Your task to perform on an android device: turn on the 24-hour format for clock Image 0: 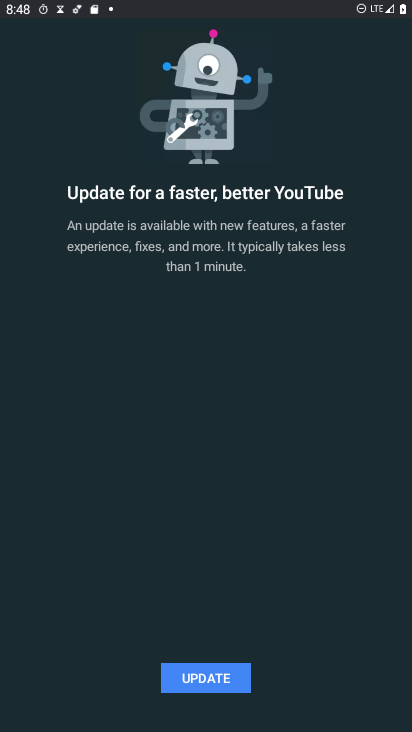
Step 0: press home button
Your task to perform on an android device: turn on the 24-hour format for clock Image 1: 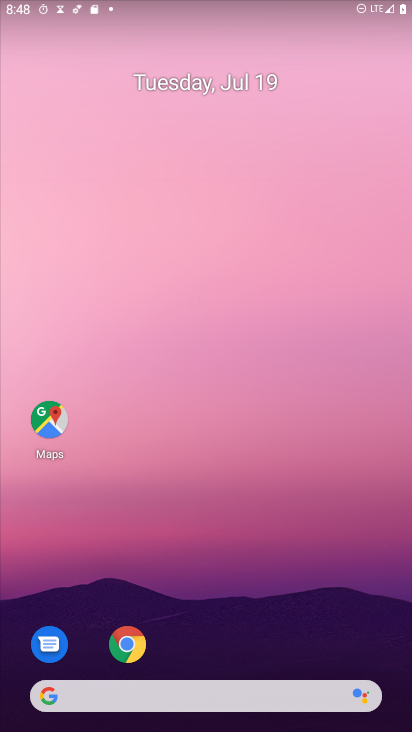
Step 1: drag from (34, 687) to (233, 188)
Your task to perform on an android device: turn on the 24-hour format for clock Image 2: 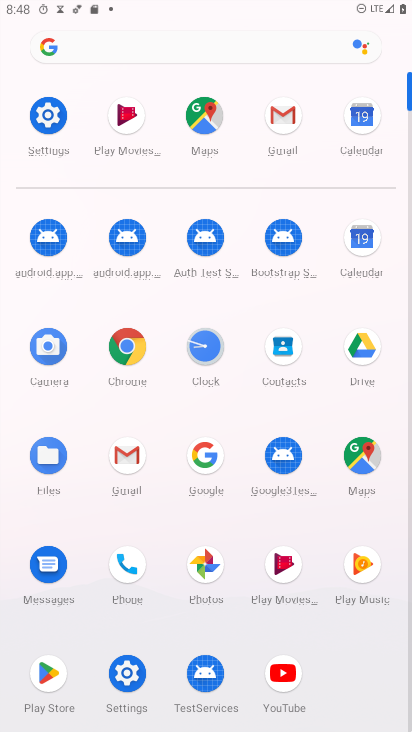
Step 2: click (204, 355)
Your task to perform on an android device: turn on the 24-hour format for clock Image 3: 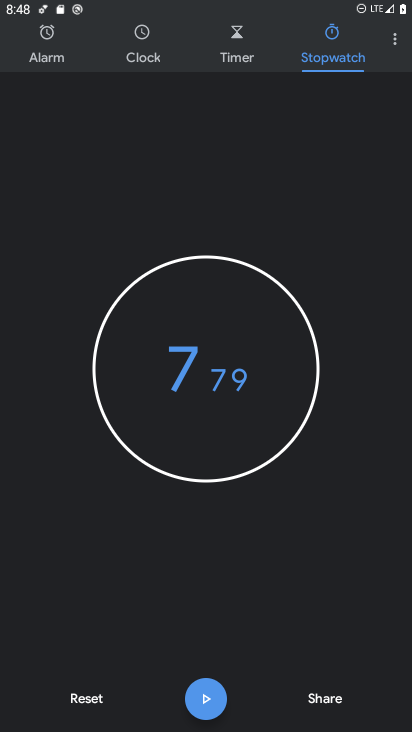
Step 3: click (139, 43)
Your task to perform on an android device: turn on the 24-hour format for clock Image 4: 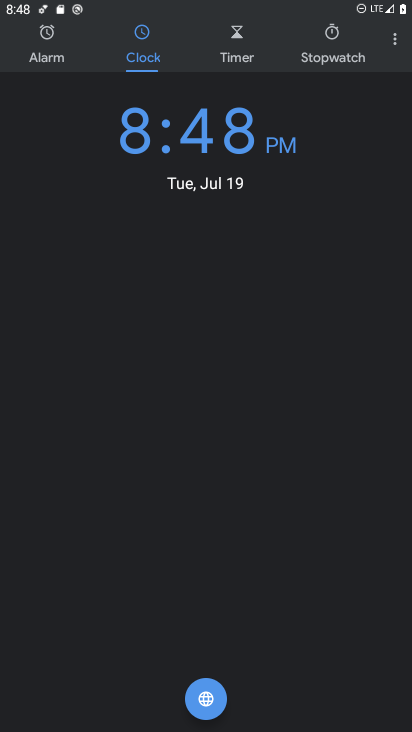
Step 4: click (399, 42)
Your task to perform on an android device: turn on the 24-hour format for clock Image 5: 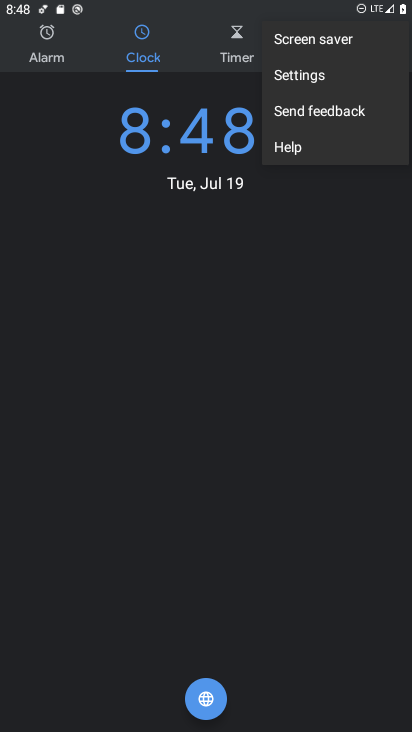
Step 5: click (286, 79)
Your task to perform on an android device: turn on the 24-hour format for clock Image 6: 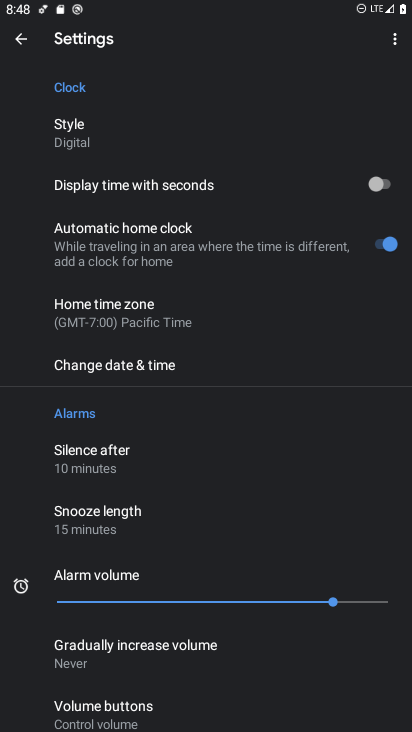
Step 6: click (123, 349)
Your task to perform on an android device: turn on the 24-hour format for clock Image 7: 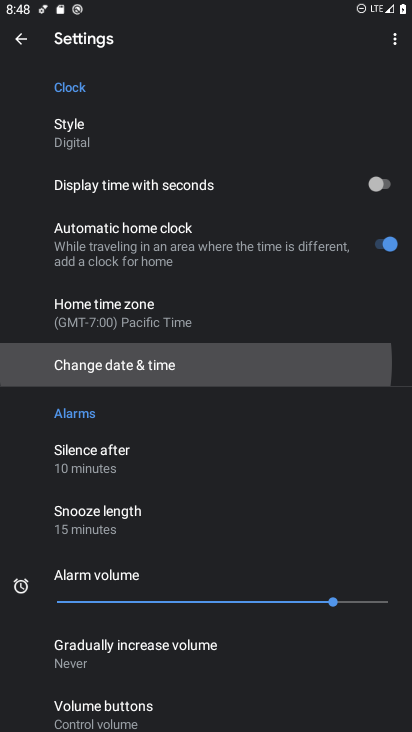
Step 7: click (120, 357)
Your task to perform on an android device: turn on the 24-hour format for clock Image 8: 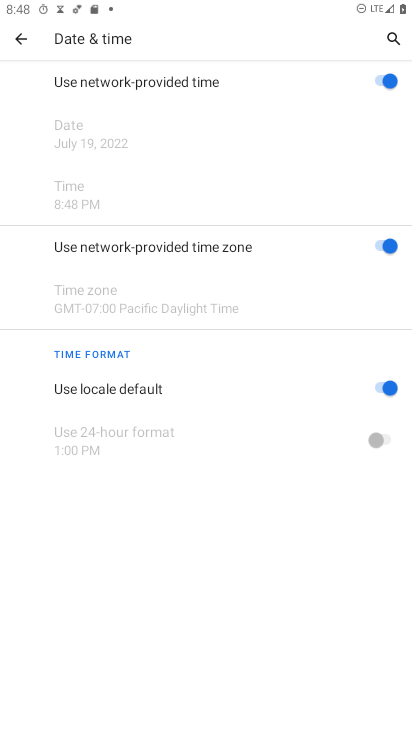
Step 8: click (373, 438)
Your task to perform on an android device: turn on the 24-hour format for clock Image 9: 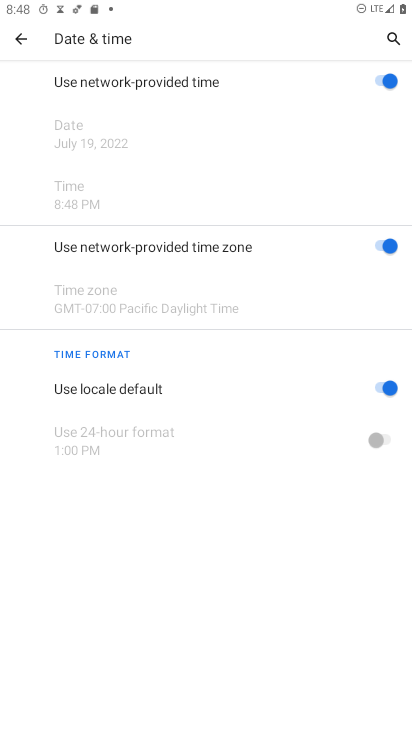
Step 9: click (397, 383)
Your task to perform on an android device: turn on the 24-hour format for clock Image 10: 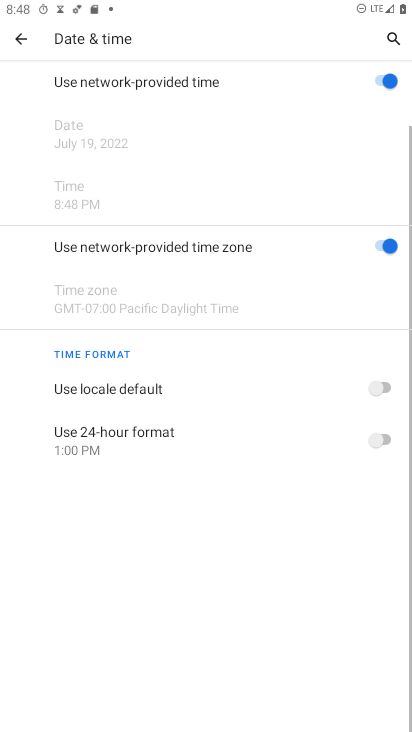
Step 10: click (384, 444)
Your task to perform on an android device: turn on the 24-hour format for clock Image 11: 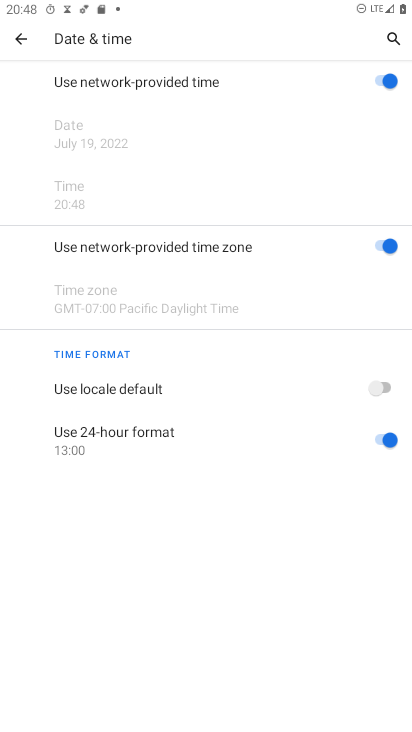
Step 11: task complete